Your task to perform on an android device: turn on the 24-hour format for clock Image 0: 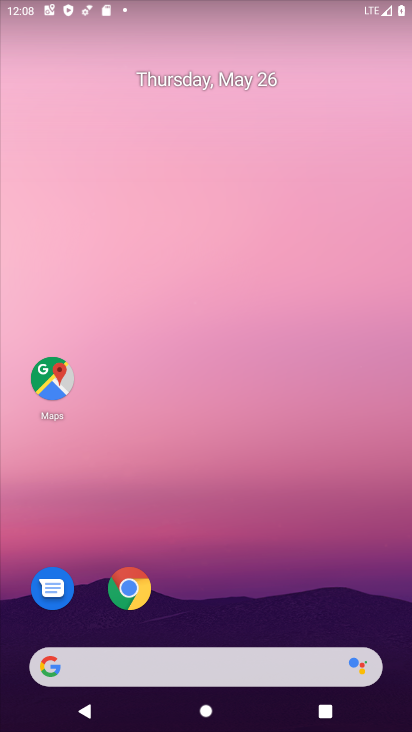
Step 0: drag from (213, 565) to (131, 38)
Your task to perform on an android device: turn on the 24-hour format for clock Image 1: 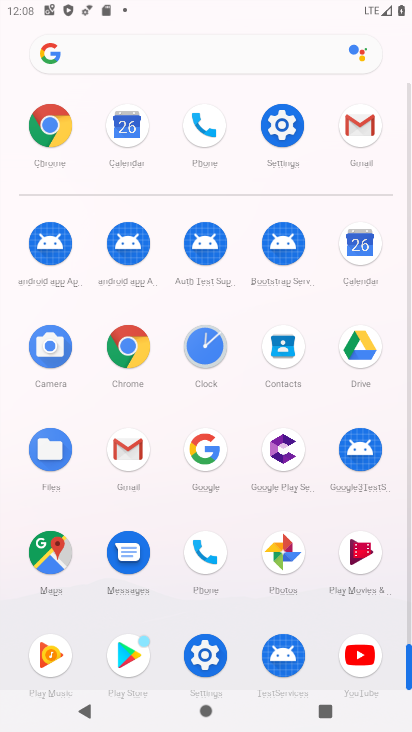
Step 1: drag from (5, 559) to (16, 262)
Your task to perform on an android device: turn on the 24-hour format for clock Image 2: 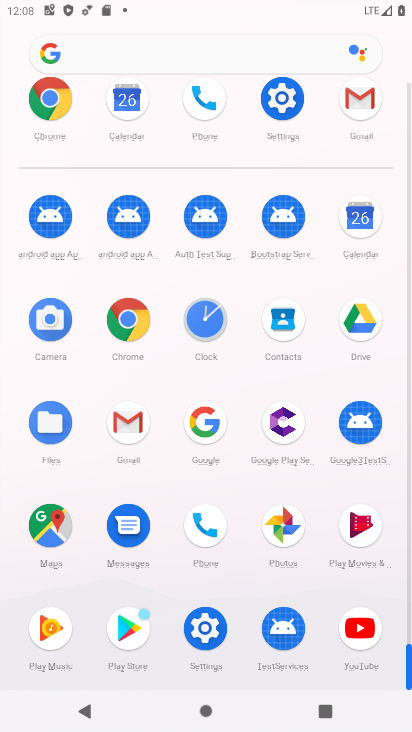
Step 2: click (203, 315)
Your task to perform on an android device: turn on the 24-hour format for clock Image 3: 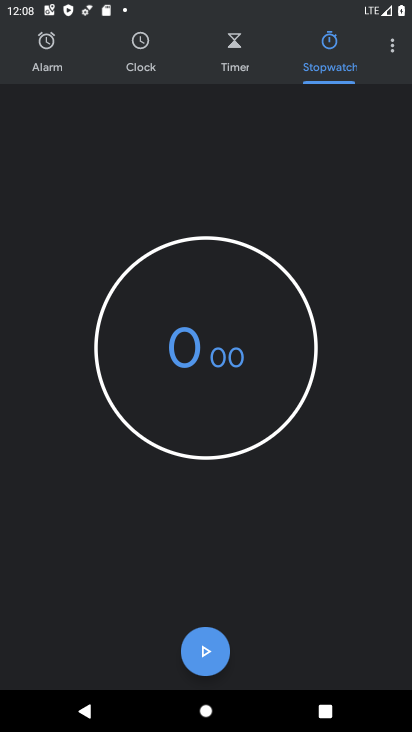
Step 3: drag from (387, 44) to (312, 92)
Your task to perform on an android device: turn on the 24-hour format for clock Image 4: 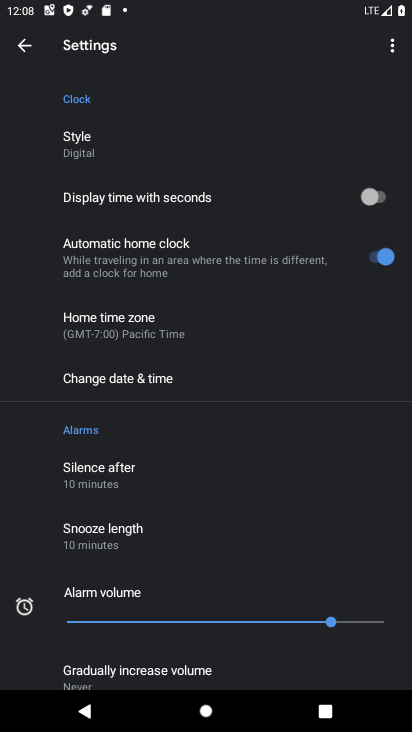
Step 4: click (143, 383)
Your task to perform on an android device: turn on the 24-hour format for clock Image 5: 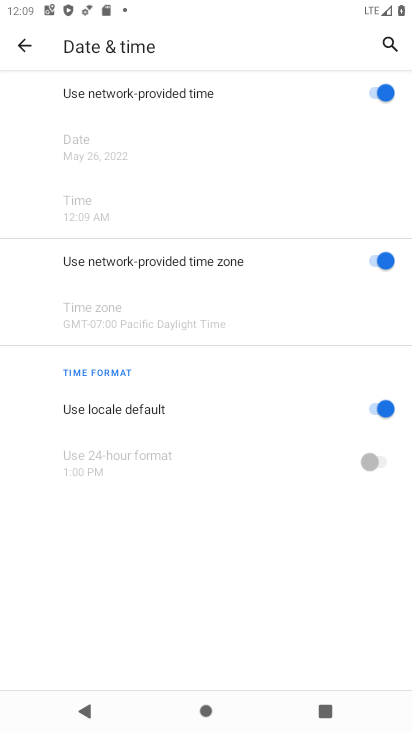
Step 5: click (378, 405)
Your task to perform on an android device: turn on the 24-hour format for clock Image 6: 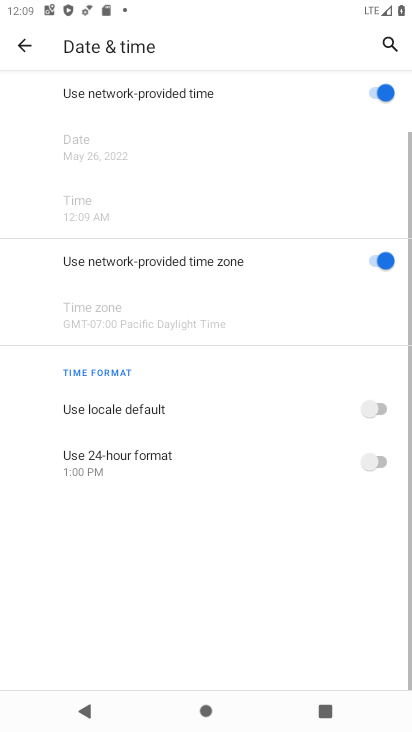
Step 6: click (374, 458)
Your task to perform on an android device: turn on the 24-hour format for clock Image 7: 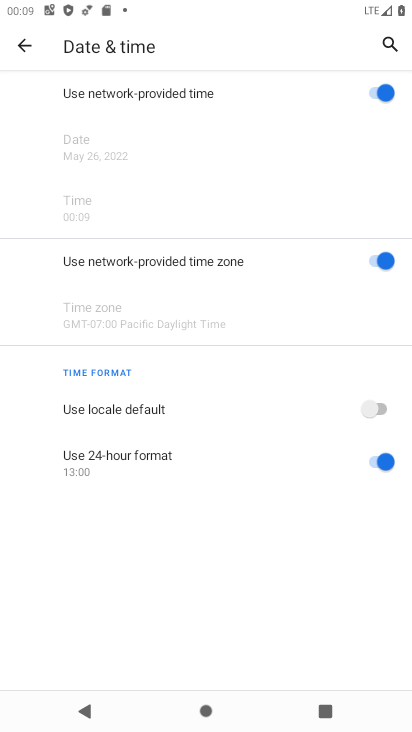
Step 7: task complete